Your task to perform on an android device: Go to location settings Image 0: 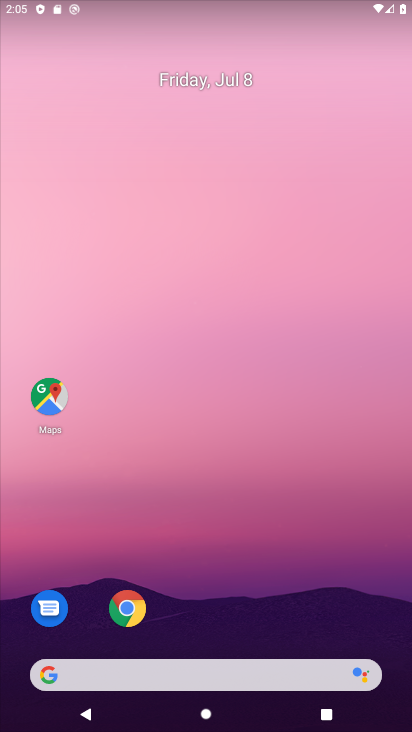
Step 0: drag from (209, 624) to (235, 116)
Your task to perform on an android device: Go to location settings Image 1: 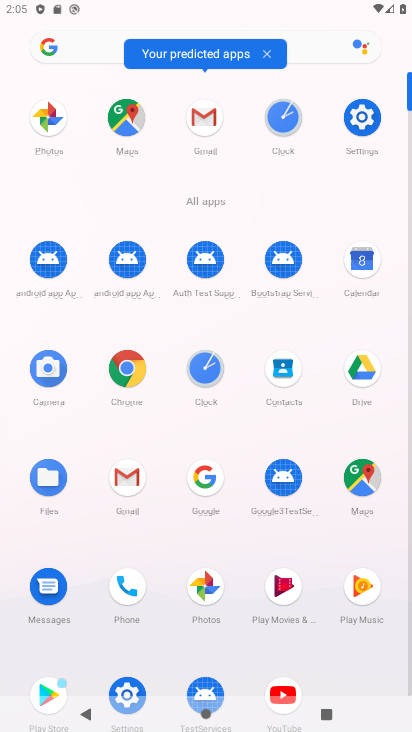
Step 1: click (362, 123)
Your task to perform on an android device: Go to location settings Image 2: 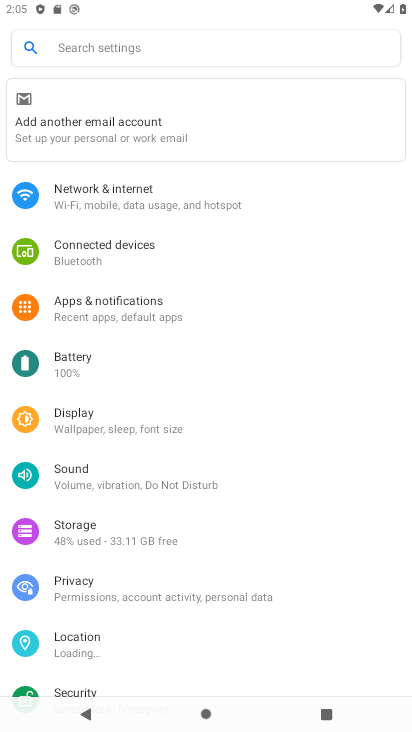
Step 2: click (102, 647)
Your task to perform on an android device: Go to location settings Image 3: 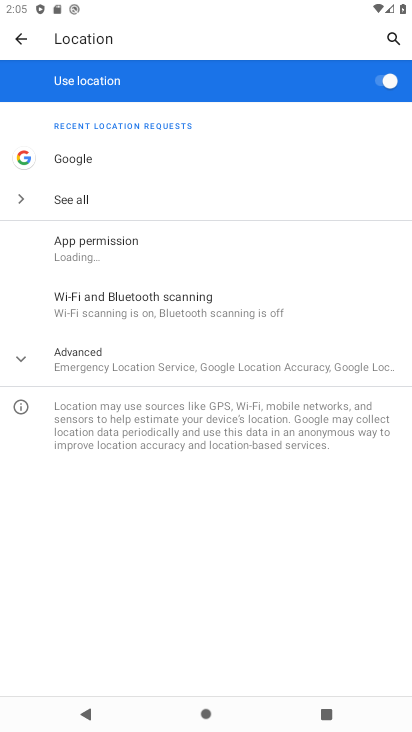
Step 3: task complete